Your task to perform on an android device: manage bookmarks in the chrome app Image 0: 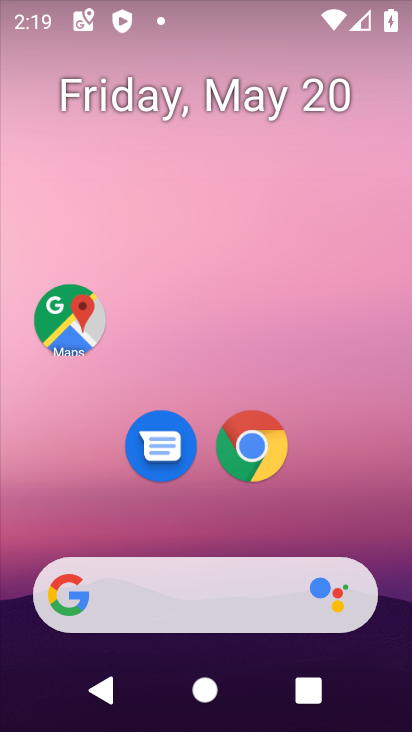
Step 0: click (257, 452)
Your task to perform on an android device: manage bookmarks in the chrome app Image 1: 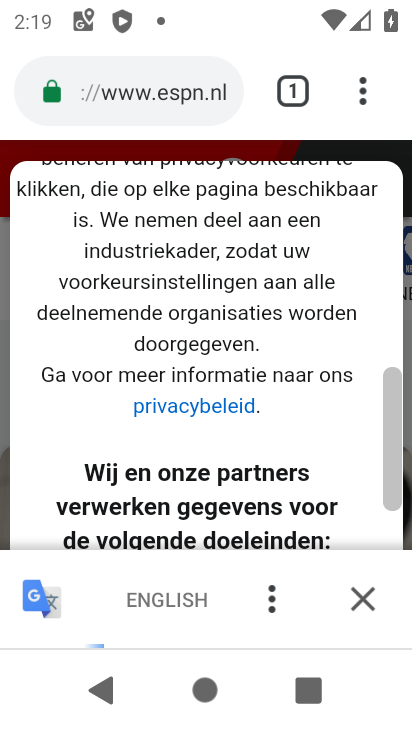
Step 1: click (366, 92)
Your task to perform on an android device: manage bookmarks in the chrome app Image 2: 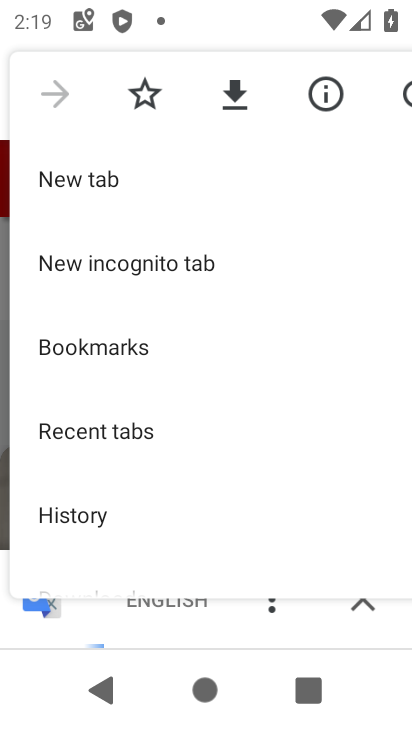
Step 2: click (79, 357)
Your task to perform on an android device: manage bookmarks in the chrome app Image 3: 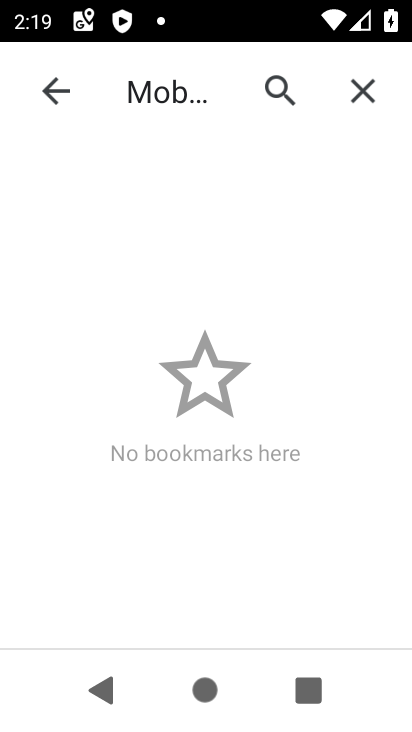
Step 3: task complete